Your task to perform on an android device: make emails show in primary in the gmail app Image 0: 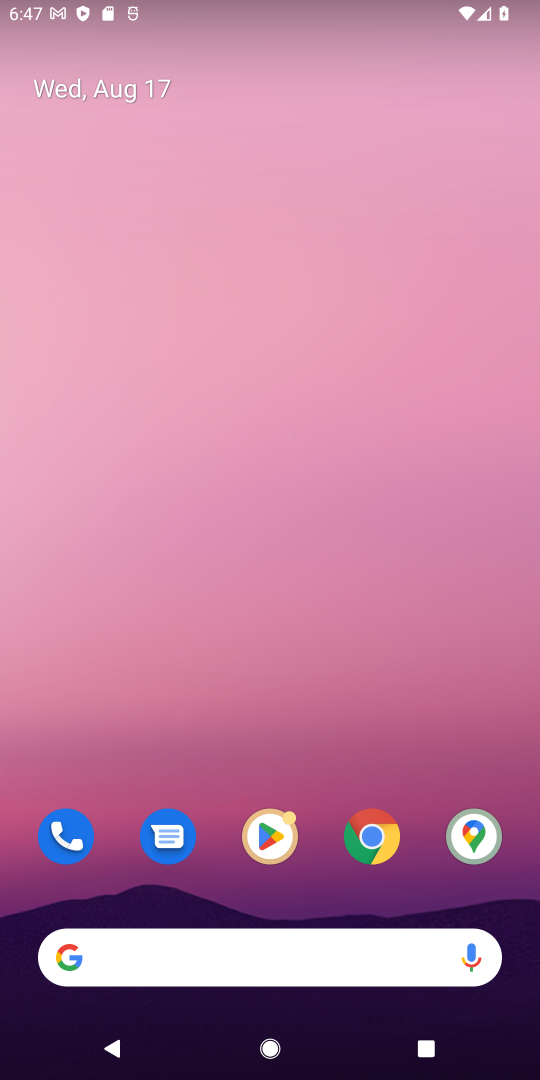
Step 0: drag from (221, 856) to (178, 29)
Your task to perform on an android device: make emails show in primary in the gmail app Image 1: 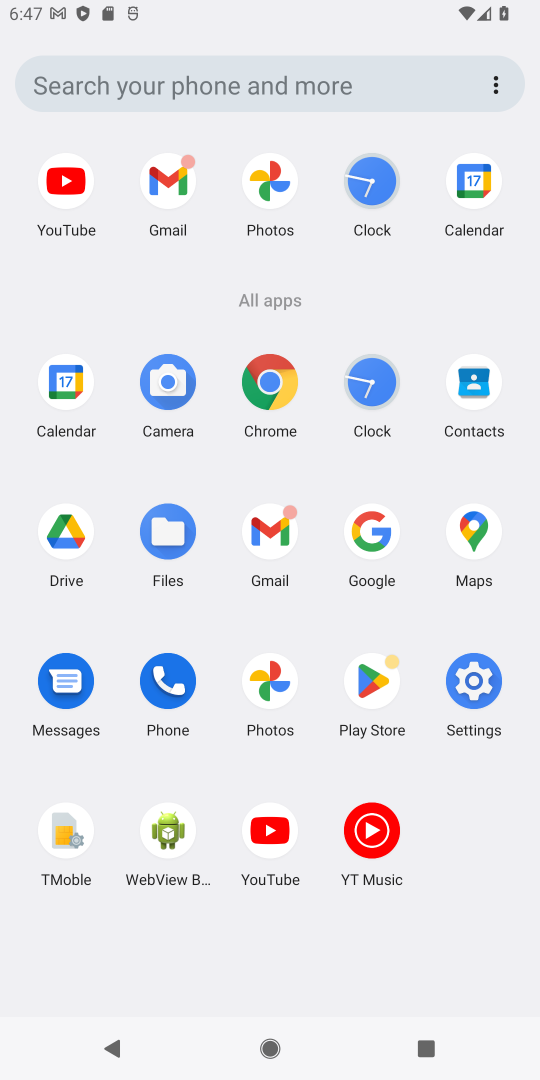
Step 1: click (267, 505)
Your task to perform on an android device: make emails show in primary in the gmail app Image 2: 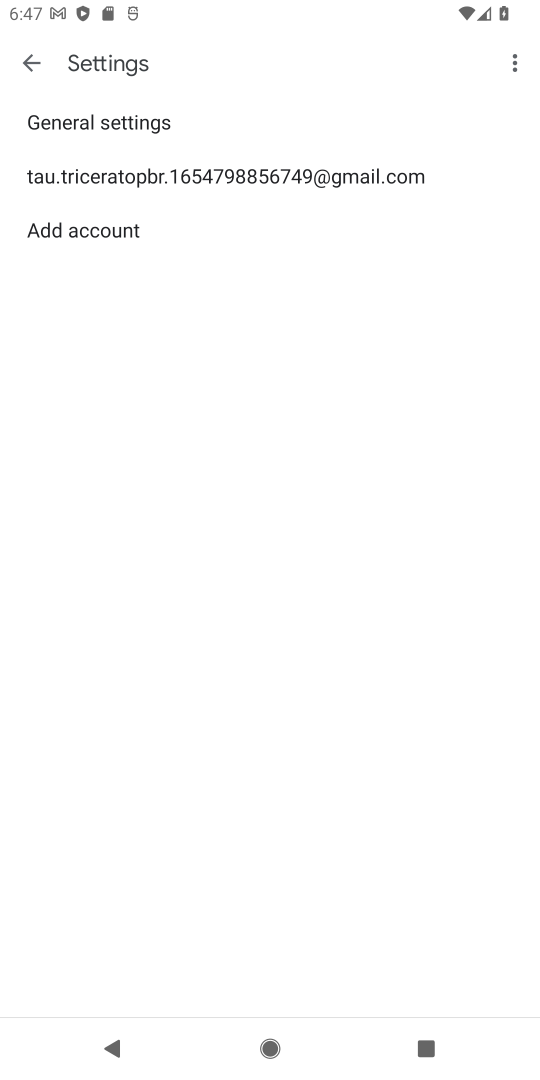
Step 2: click (100, 187)
Your task to perform on an android device: make emails show in primary in the gmail app Image 3: 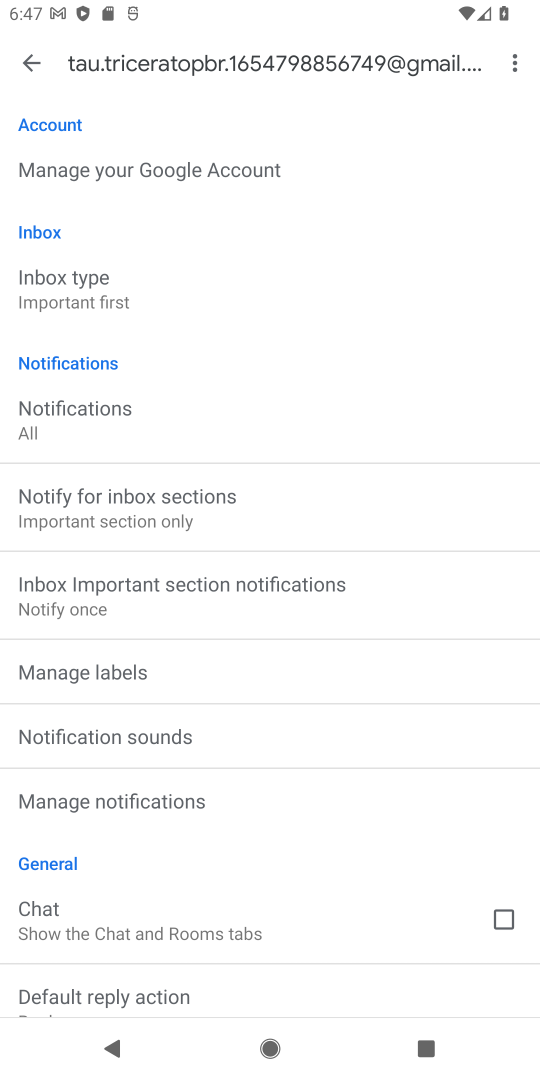
Step 3: task complete